Your task to perform on an android device: toggle improve location accuracy Image 0: 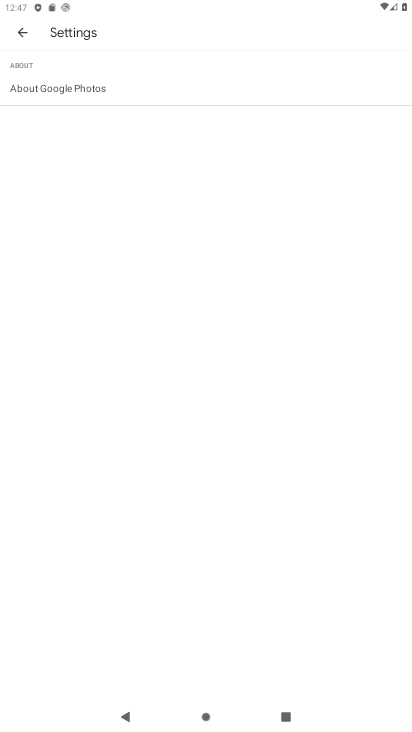
Step 0: press home button
Your task to perform on an android device: toggle improve location accuracy Image 1: 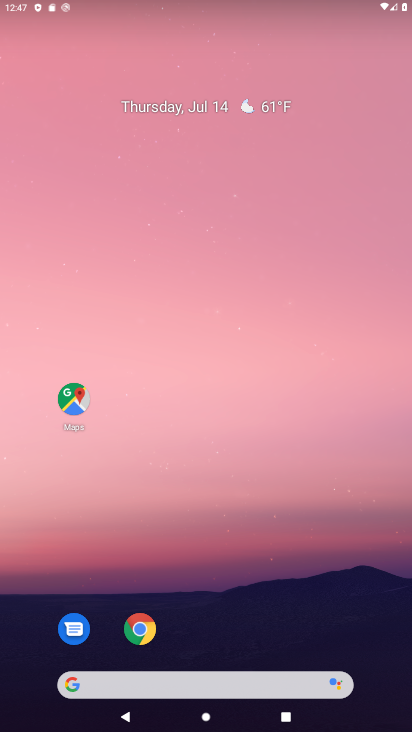
Step 1: drag from (247, 647) to (312, 143)
Your task to perform on an android device: toggle improve location accuracy Image 2: 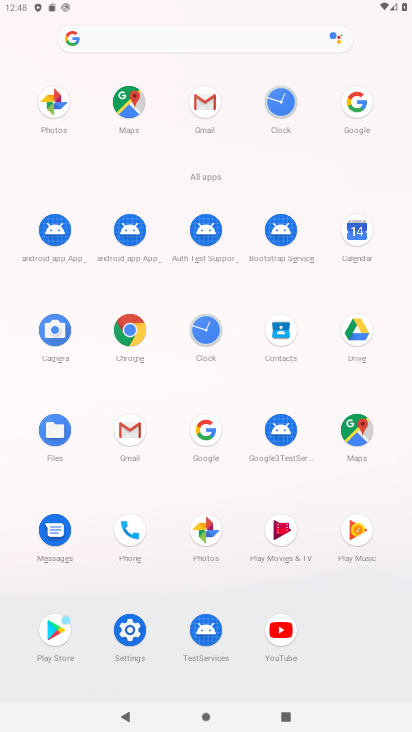
Step 2: click (133, 627)
Your task to perform on an android device: toggle improve location accuracy Image 3: 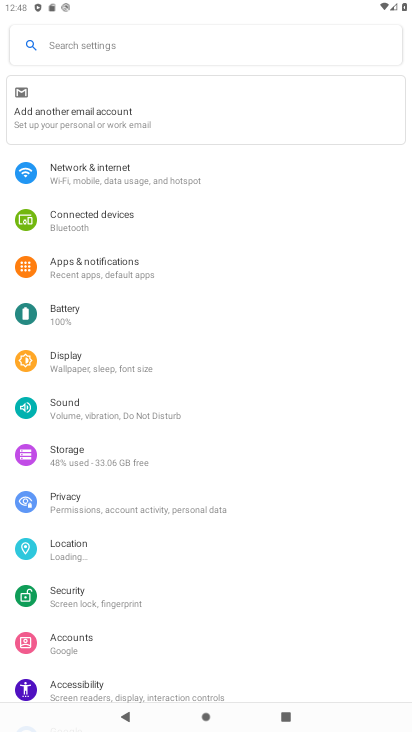
Step 3: click (113, 551)
Your task to perform on an android device: toggle improve location accuracy Image 4: 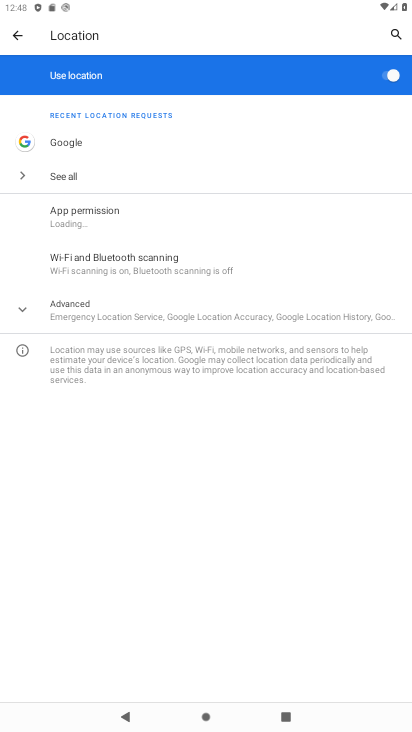
Step 4: click (63, 310)
Your task to perform on an android device: toggle improve location accuracy Image 5: 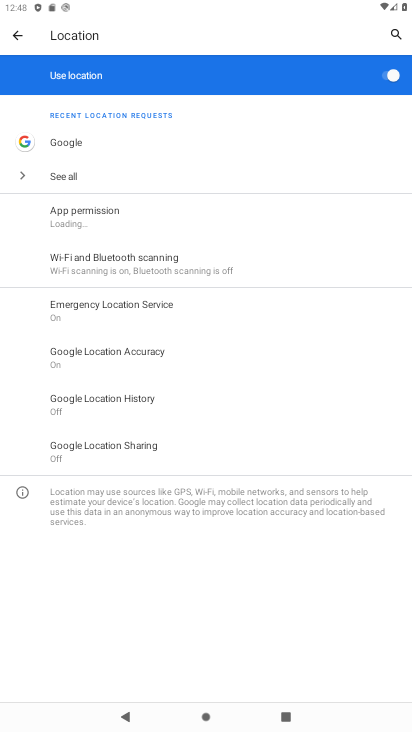
Step 5: click (144, 359)
Your task to perform on an android device: toggle improve location accuracy Image 6: 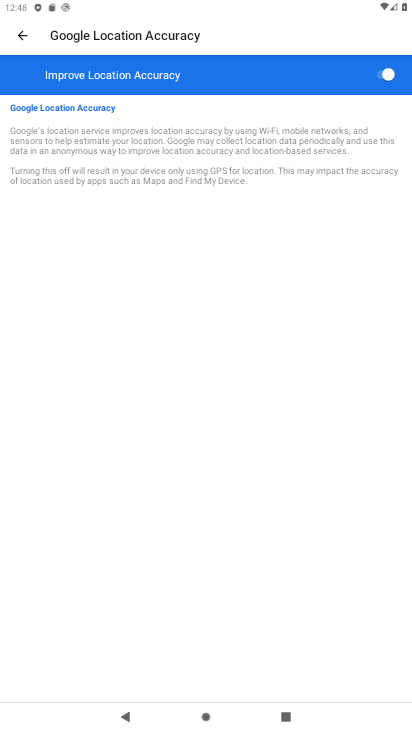
Step 6: click (391, 81)
Your task to perform on an android device: toggle improve location accuracy Image 7: 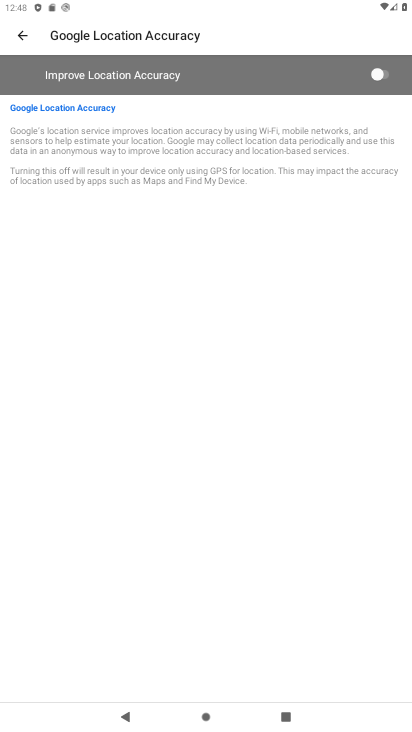
Step 7: task complete